Your task to perform on an android device: Go to calendar. Show me events next week Image 0: 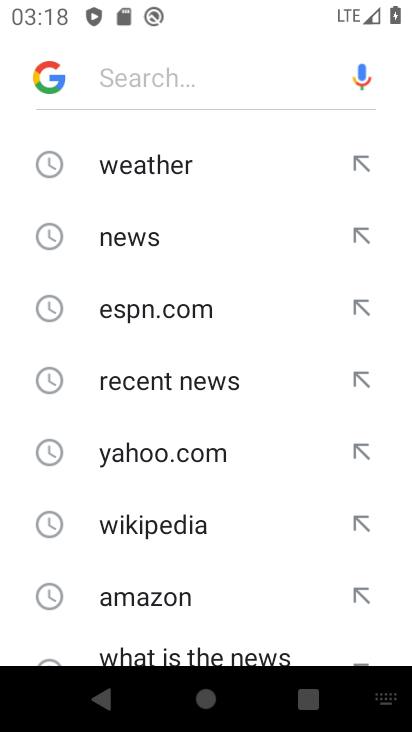
Step 0: press home button
Your task to perform on an android device: Go to calendar. Show me events next week Image 1: 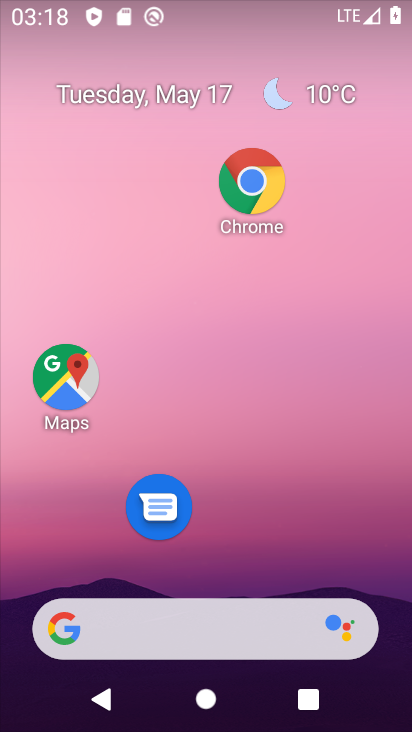
Step 1: click (145, 109)
Your task to perform on an android device: Go to calendar. Show me events next week Image 2: 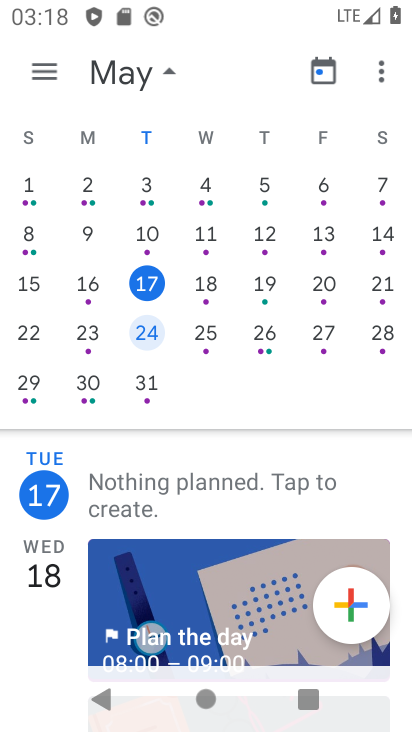
Step 2: click (146, 345)
Your task to perform on an android device: Go to calendar. Show me events next week Image 3: 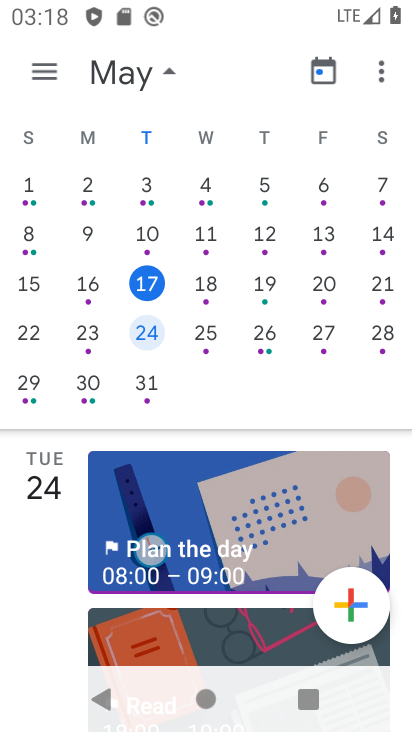
Step 3: task complete